Your task to perform on an android device: Turn on the flashlight Image 0: 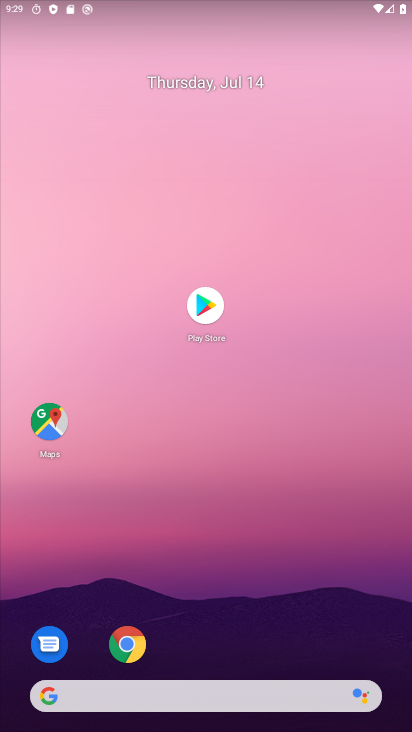
Step 0: drag from (183, 532) to (268, 219)
Your task to perform on an android device: Turn on the flashlight Image 1: 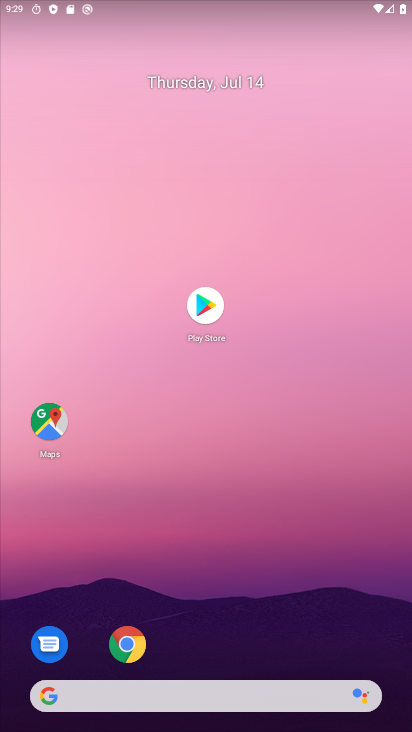
Step 1: drag from (170, 671) to (251, 106)
Your task to perform on an android device: Turn on the flashlight Image 2: 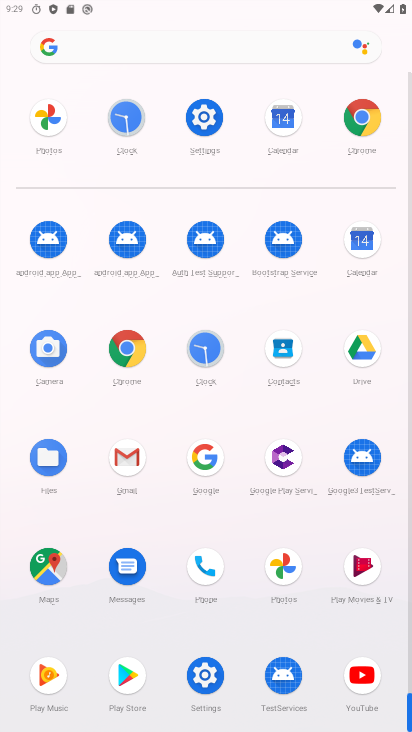
Step 2: click (207, 685)
Your task to perform on an android device: Turn on the flashlight Image 3: 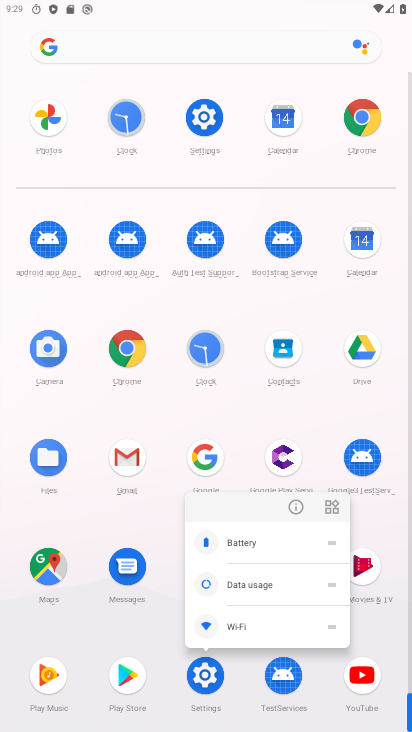
Step 3: click (295, 499)
Your task to perform on an android device: Turn on the flashlight Image 4: 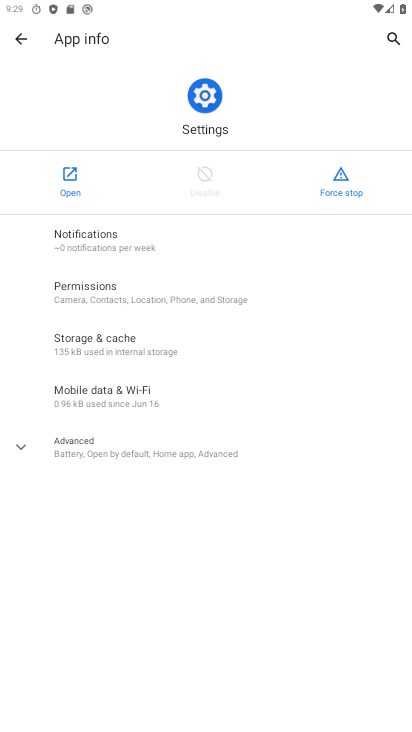
Step 4: click (63, 188)
Your task to perform on an android device: Turn on the flashlight Image 5: 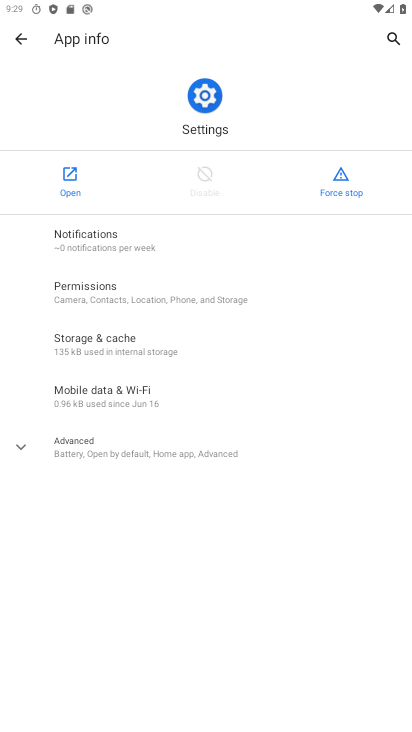
Step 5: click (63, 188)
Your task to perform on an android device: Turn on the flashlight Image 6: 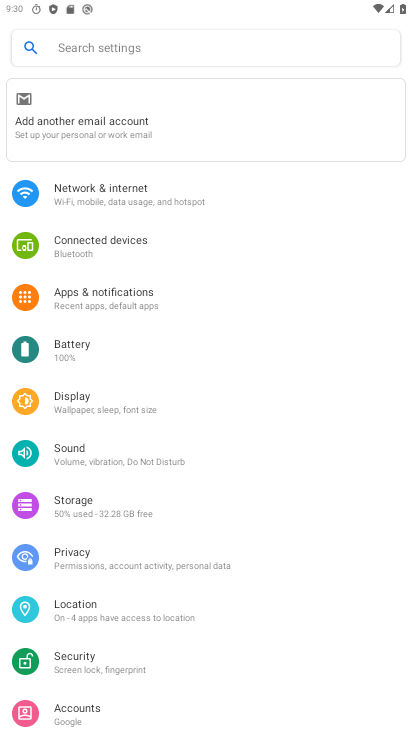
Step 6: click (95, 43)
Your task to perform on an android device: Turn on the flashlight Image 7: 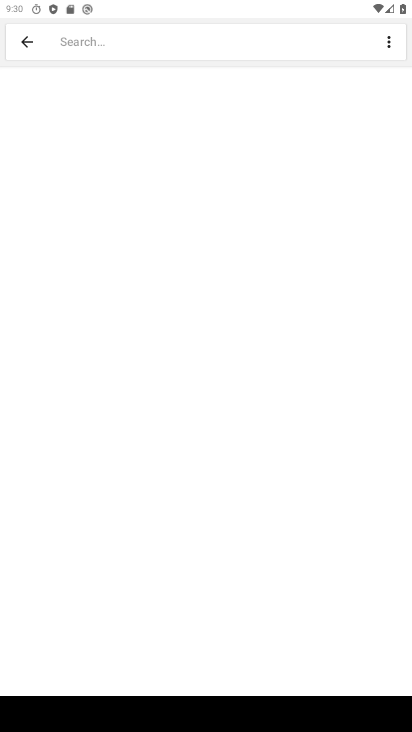
Step 7: type "flashlight"
Your task to perform on an android device: Turn on the flashlight Image 8: 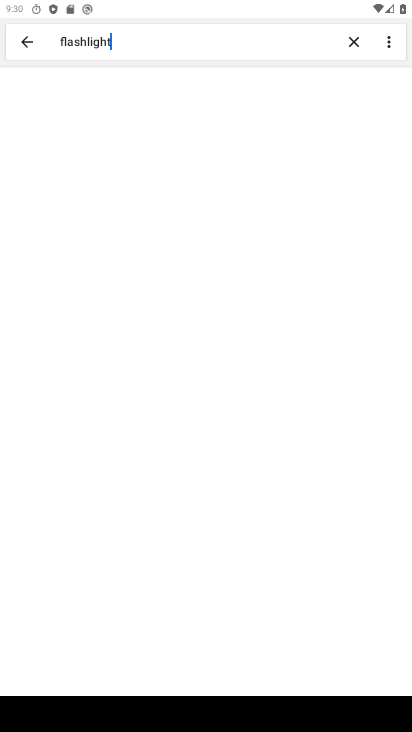
Step 8: type ""
Your task to perform on an android device: Turn on the flashlight Image 9: 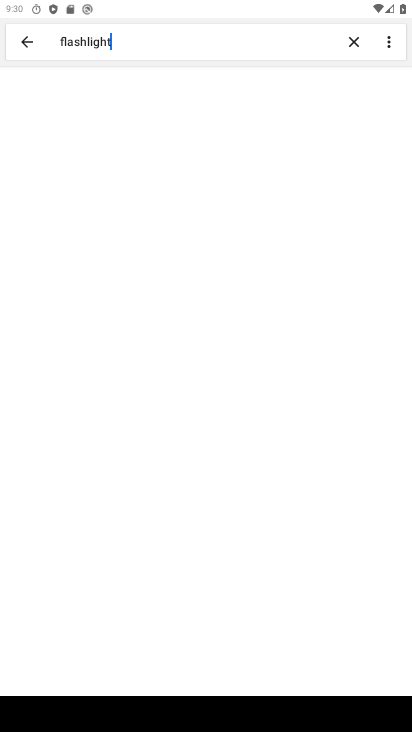
Step 9: drag from (156, 461) to (194, 197)
Your task to perform on an android device: Turn on the flashlight Image 10: 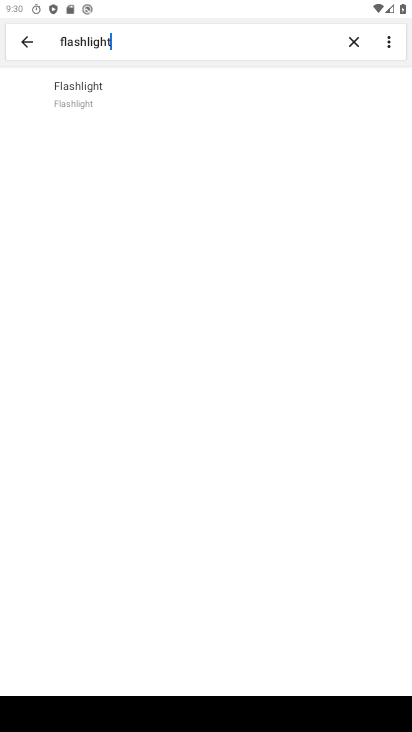
Step 10: click (153, 106)
Your task to perform on an android device: Turn on the flashlight Image 11: 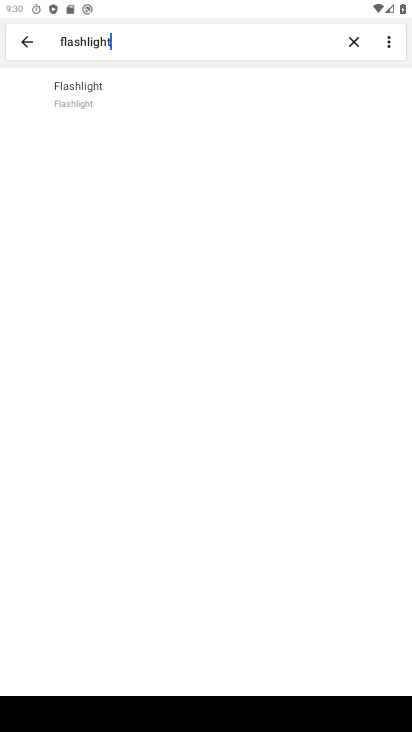
Step 11: task complete